Your task to perform on an android device: empty trash in the gmail app Image 0: 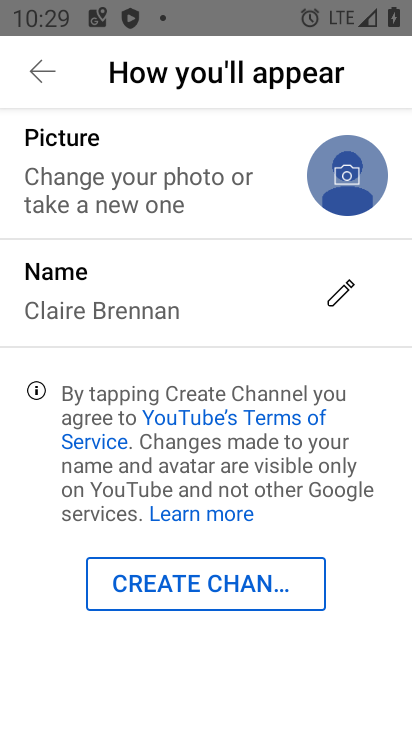
Step 0: press home button
Your task to perform on an android device: empty trash in the gmail app Image 1: 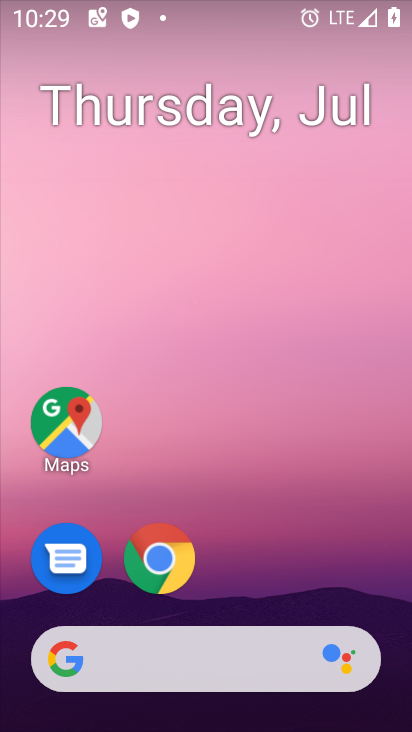
Step 1: drag from (334, 575) to (374, 65)
Your task to perform on an android device: empty trash in the gmail app Image 2: 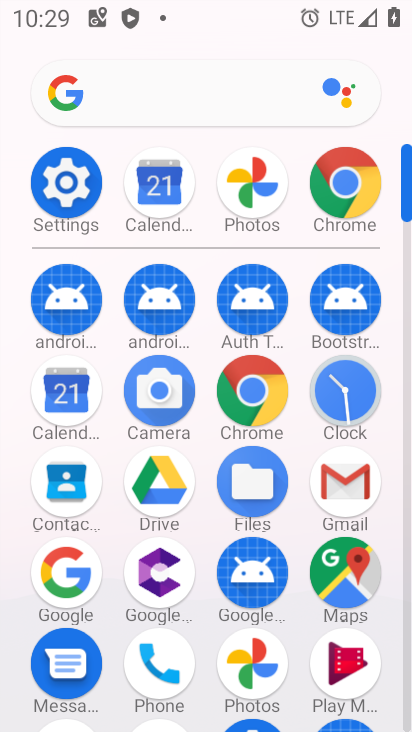
Step 2: click (352, 478)
Your task to perform on an android device: empty trash in the gmail app Image 3: 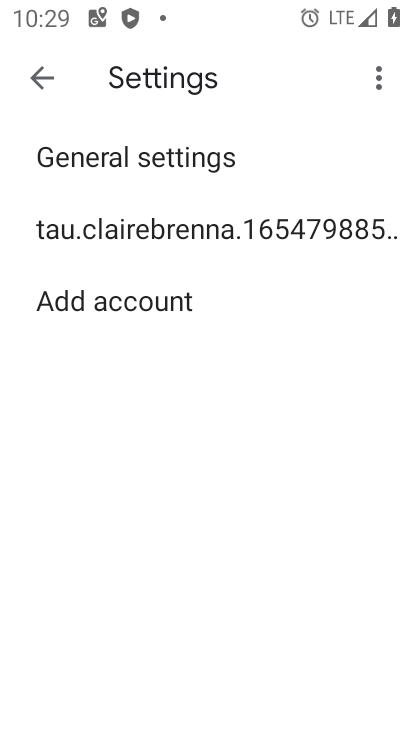
Step 3: press back button
Your task to perform on an android device: empty trash in the gmail app Image 4: 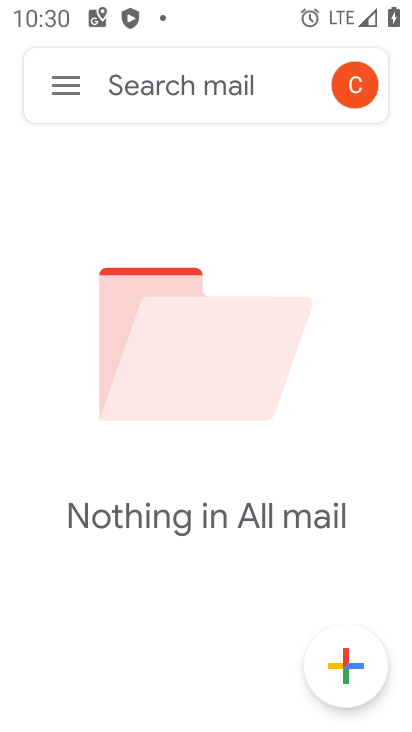
Step 4: click (73, 83)
Your task to perform on an android device: empty trash in the gmail app Image 5: 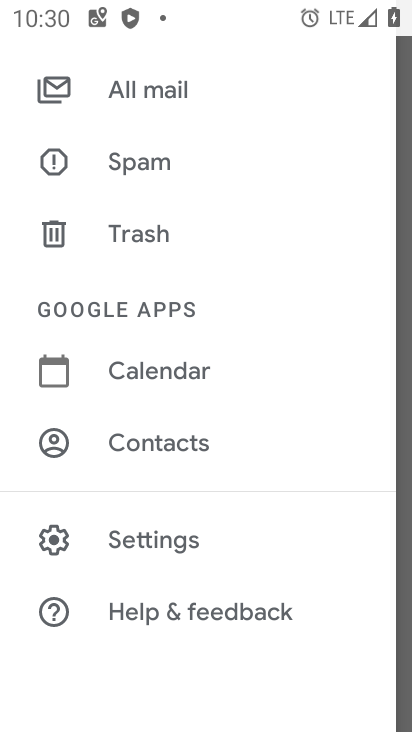
Step 5: drag from (299, 262) to (324, 390)
Your task to perform on an android device: empty trash in the gmail app Image 6: 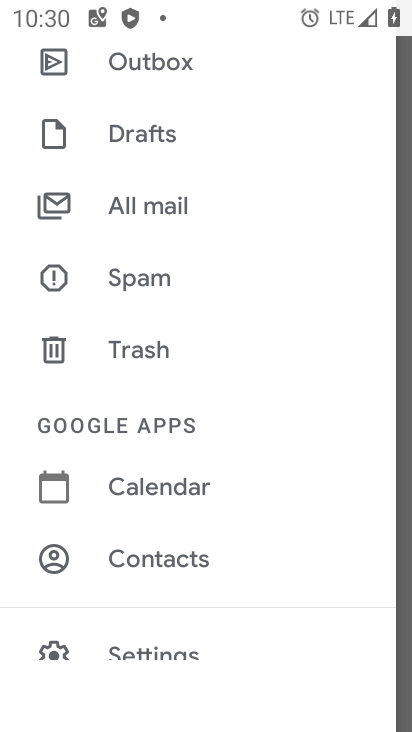
Step 6: drag from (319, 181) to (322, 341)
Your task to perform on an android device: empty trash in the gmail app Image 7: 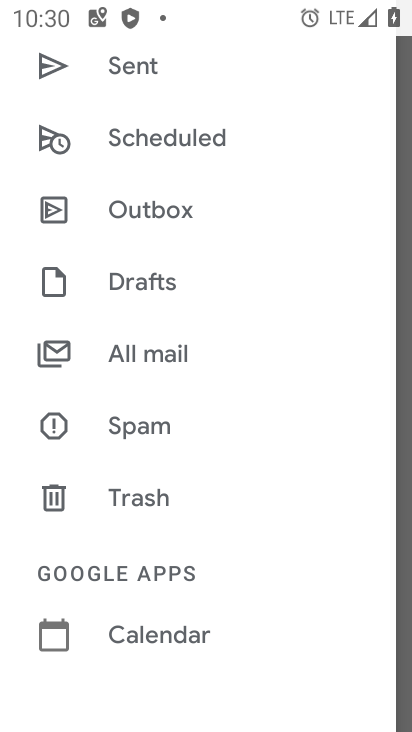
Step 7: drag from (306, 234) to (302, 388)
Your task to perform on an android device: empty trash in the gmail app Image 8: 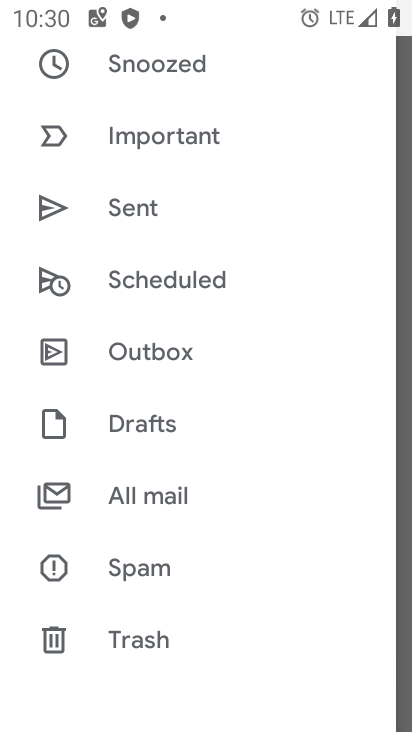
Step 8: click (215, 644)
Your task to perform on an android device: empty trash in the gmail app Image 9: 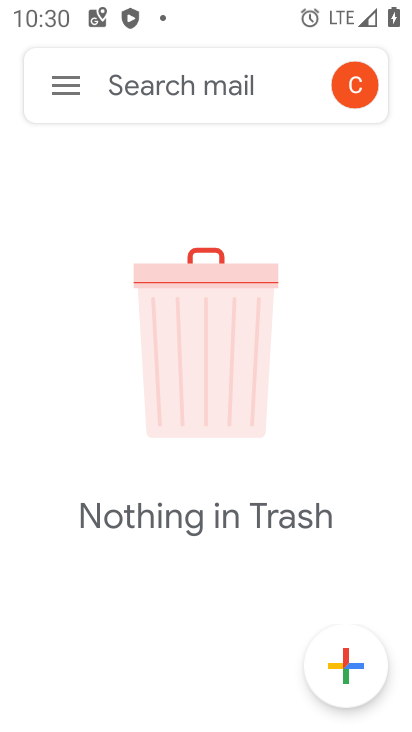
Step 9: task complete